Your task to perform on an android device: turn off notifications settings in the gmail app Image 0: 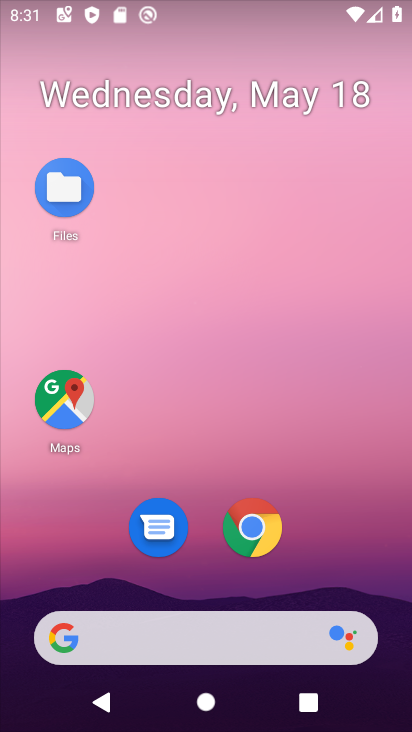
Step 0: drag from (361, 691) to (156, 111)
Your task to perform on an android device: turn off notifications settings in the gmail app Image 1: 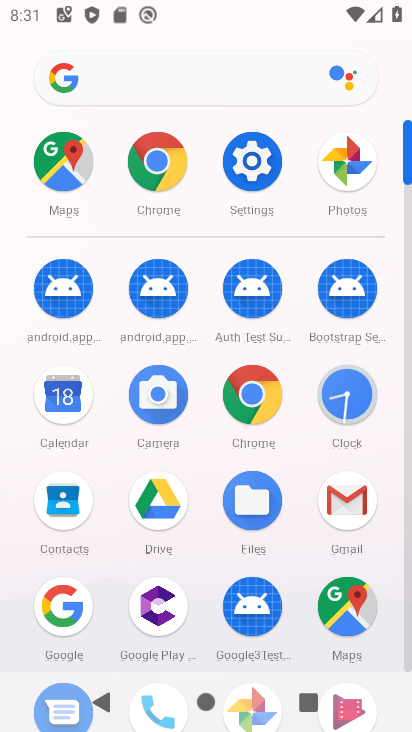
Step 1: click (341, 503)
Your task to perform on an android device: turn off notifications settings in the gmail app Image 2: 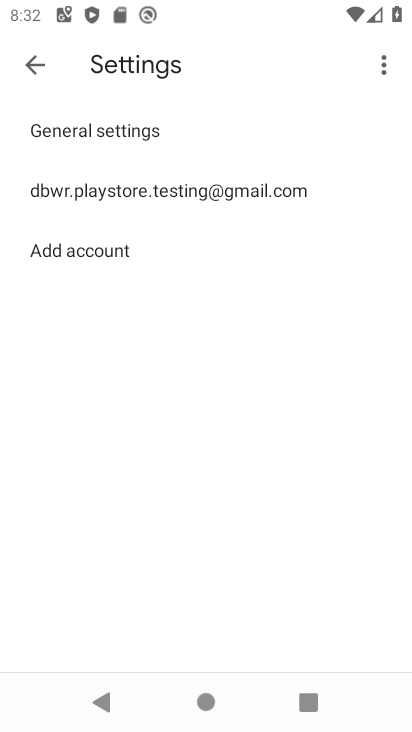
Step 2: click (120, 195)
Your task to perform on an android device: turn off notifications settings in the gmail app Image 3: 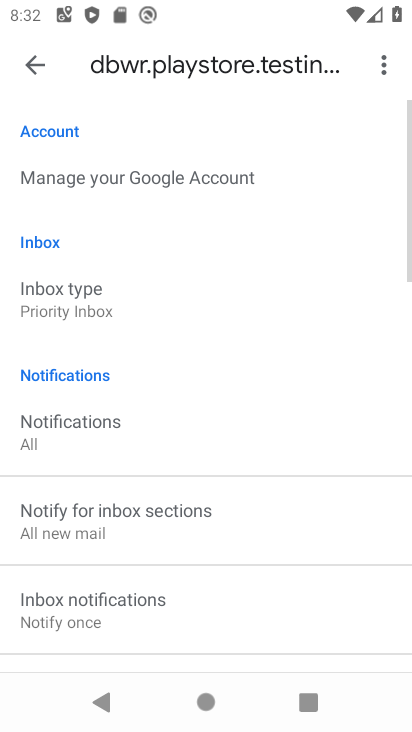
Step 3: click (60, 418)
Your task to perform on an android device: turn off notifications settings in the gmail app Image 4: 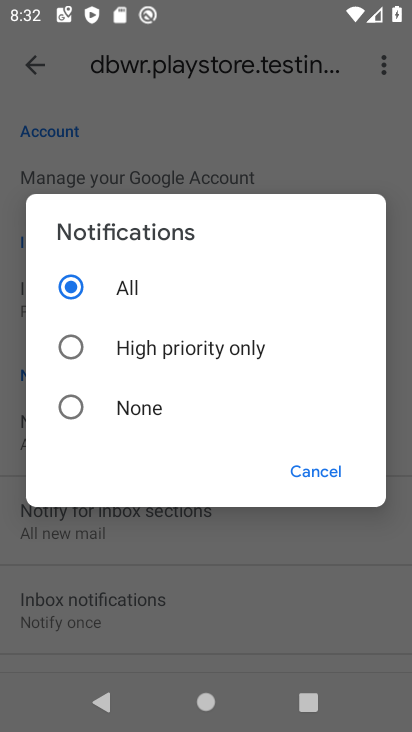
Step 4: click (67, 407)
Your task to perform on an android device: turn off notifications settings in the gmail app Image 5: 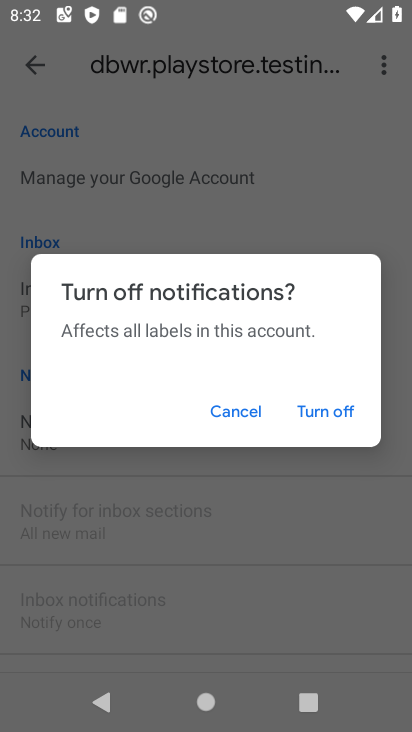
Step 5: click (306, 420)
Your task to perform on an android device: turn off notifications settings in the gmail app Image 6: 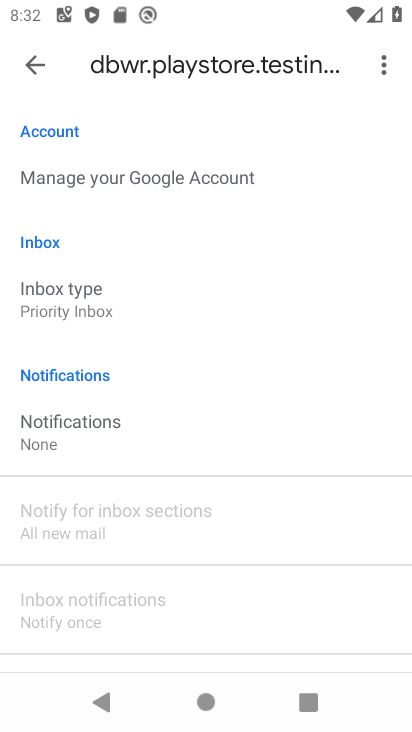
Step 6: task complete